Your task to perform on an android device: Open calendar and show me the fourth week of next month Image 0: 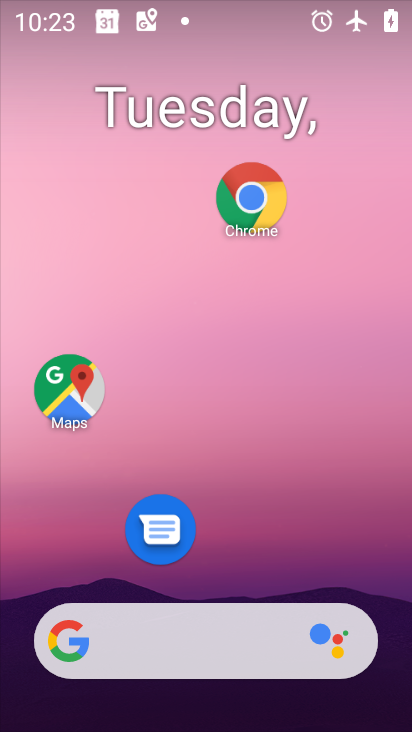
Step 0: drag from (282, 594) to (284, 4)
Your task to perform on an android device: Open calendar and show me the fourth week of next month Image 1: 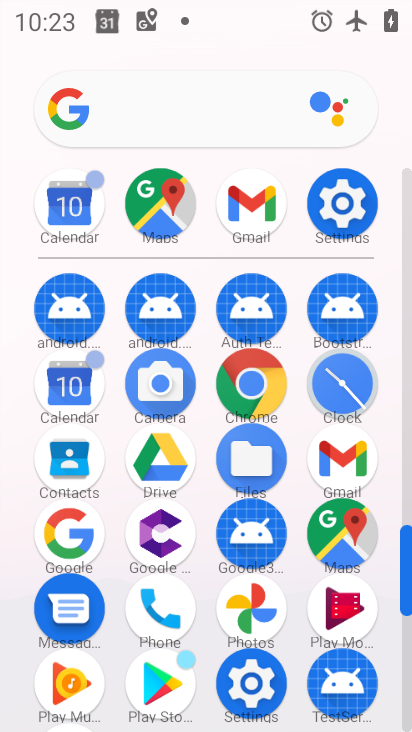
Step 1: click (77, 228)
Your task to perform on an android device: Open calendar and show me the fourth week of next month Image 2: 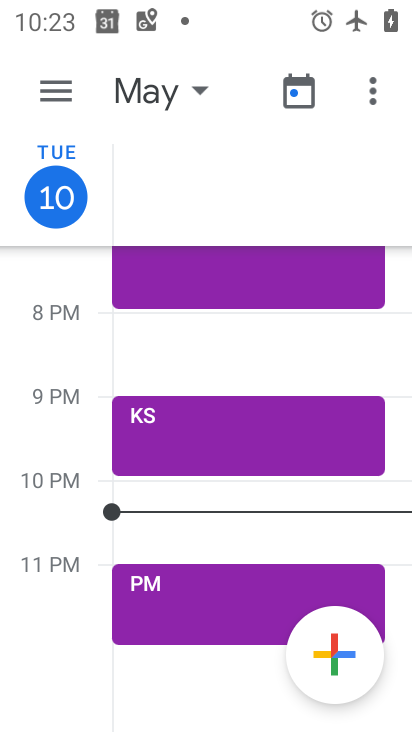
Step 2: click (188, 89)
Your task to perform on an android device: Open calendar and show me the fourth week of next month Image 3: 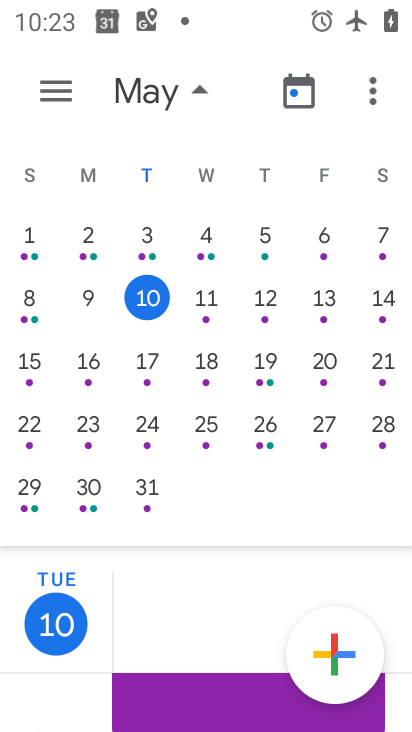
Step 3: drag from (406, 380) to (31, 386)
Your task to perform on an android device: Open calendar and show me the fourth week of next month Image 4: 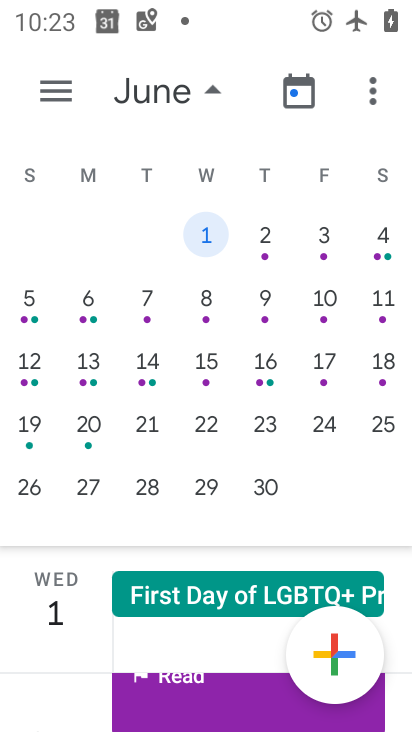
Step 4: click (159, 355)
Your task to perform on an android device: Open calendar and show me the fourth week of next month Image 5: 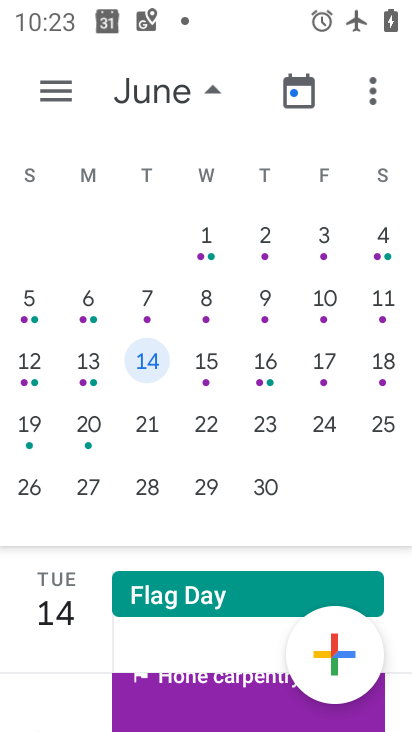
Step 5: task complete